Your task to perform on an android device: add a label to a message in the gmail app Image 0: 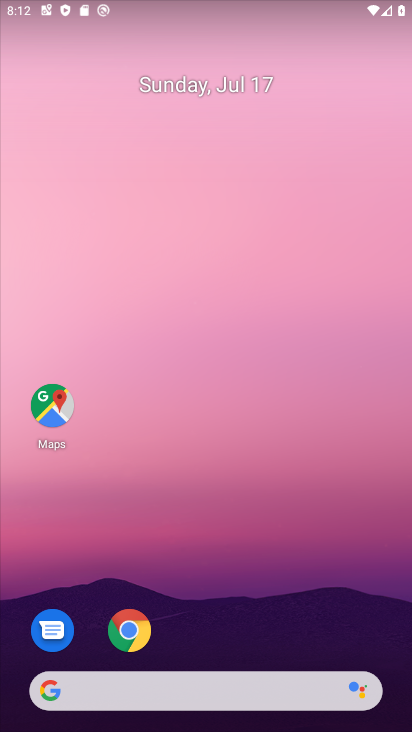
Step 0: drag from (182, 699) to (233, 152)
Your task to perform on an android device: add a label to a message in the gmail app Image 1: 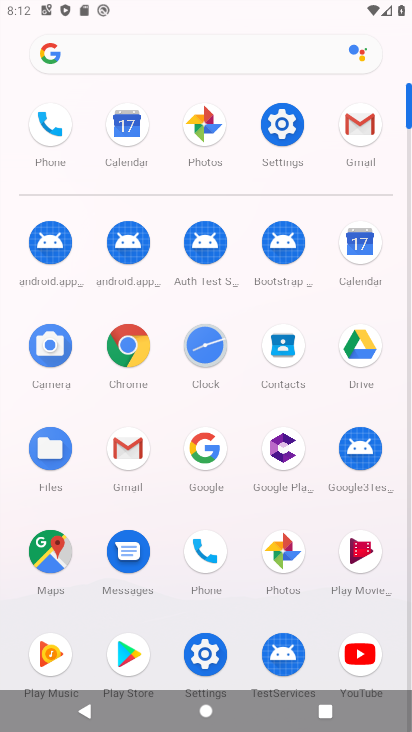
Step 1: click (366, 113)
Your task to perform on an android device: add a label to a message in the gmail app Image 2: 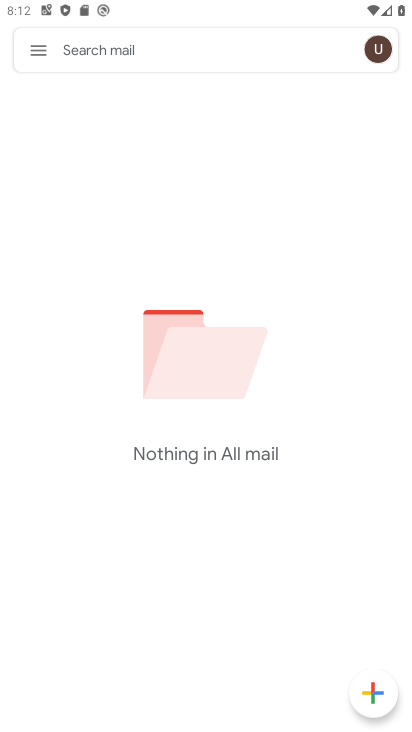
Step 2: task complete